Your task to perform on an android device: turn off location Image 0: 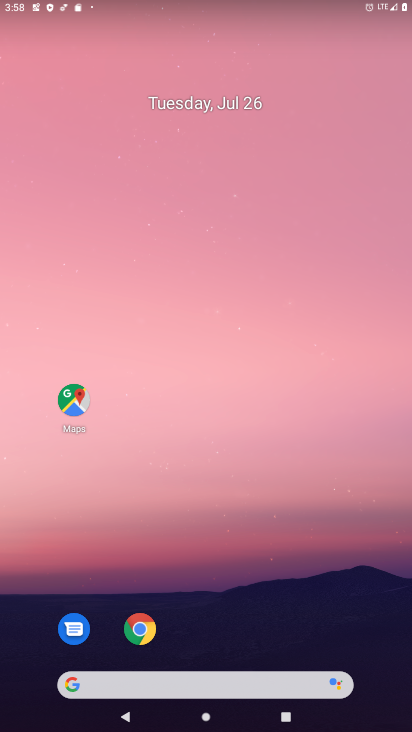
Step 0: drag from (224, 546) to (240, 171)
Your task to perform on an android device: turn off location Image 1: 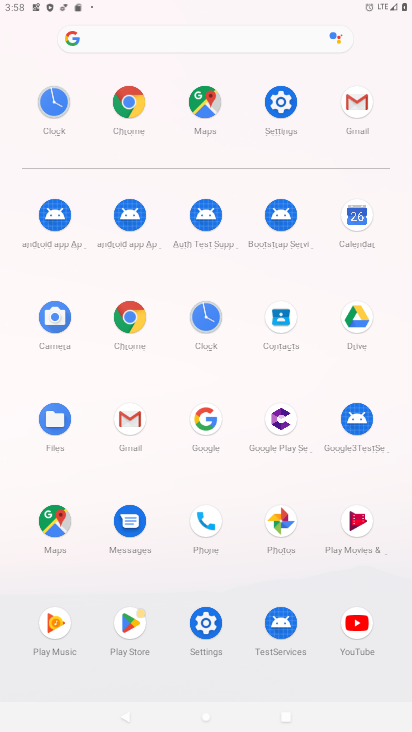
Step 1: click (281, 104)
Your task to perform on an android device: turn off location Image 2: 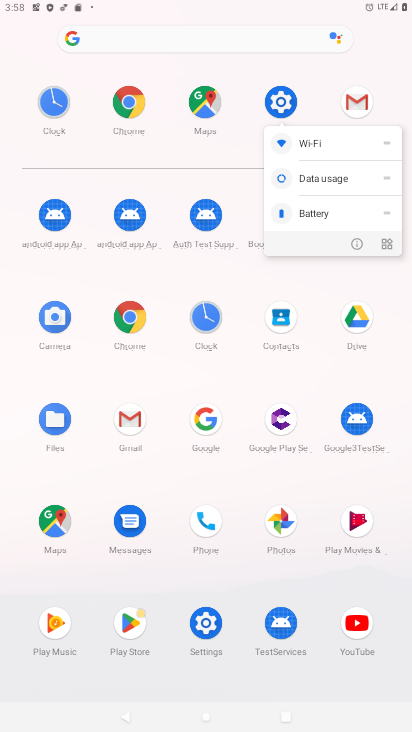
Step 2: click (281, 104)
Your task to perform on an android device: turn off location Image 3: 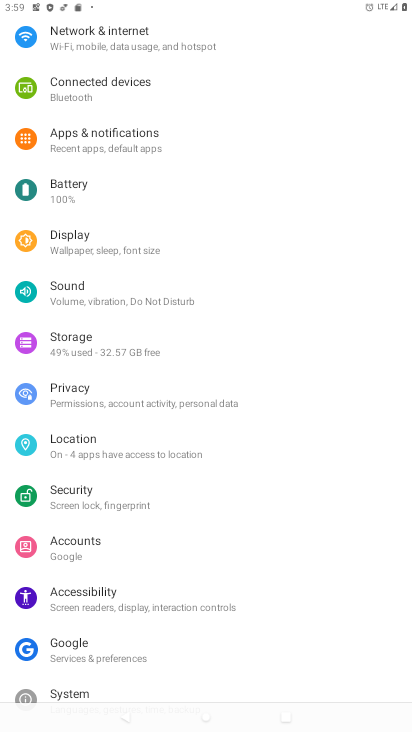
Step 3: click (66, 445)
Your task to perform on an android device: turn off location Image 4: 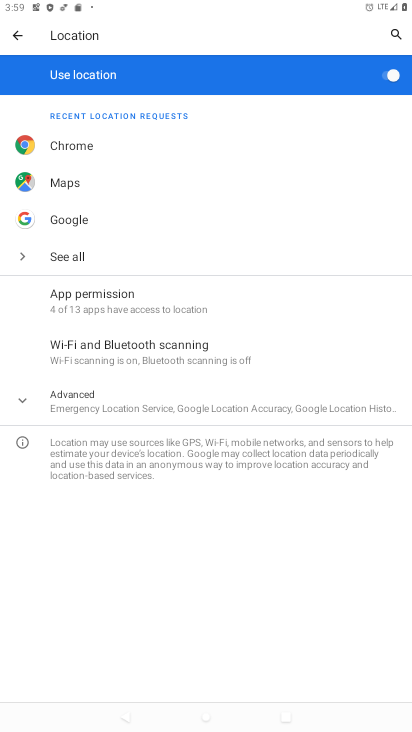
Step 4: click (387, 77)
Your task to perform on an android device: turn off location Image 5: 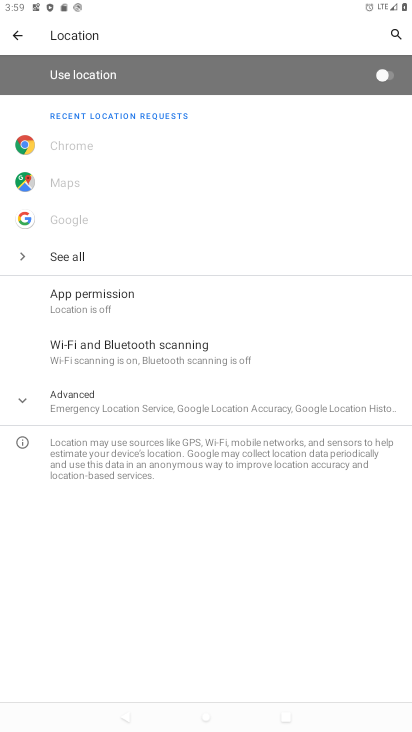
Step 5: task complete